Your task to perform on an android device: create a new album in the google photos Image 0: 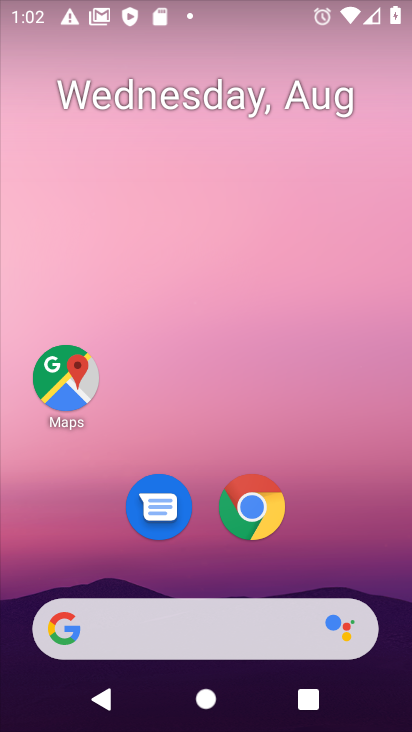
Step 0: drag from (245, 578) to (348, 73)
Your task to perform on an android device: create a new album in the google photos Image 1: 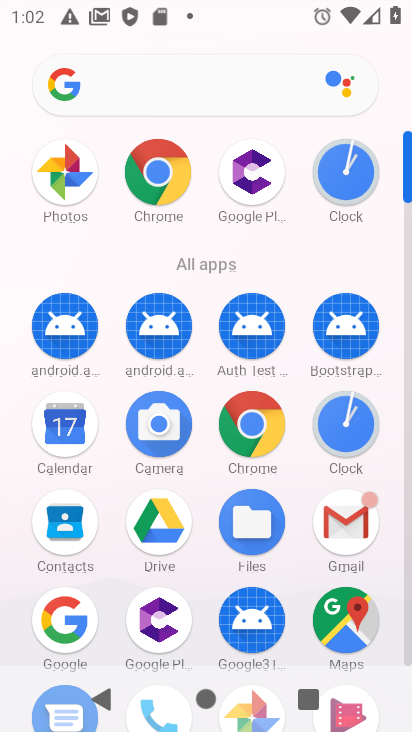
Step 1: drag from (195, 563) to (168, 190)
Your task to perform on an android device: create a new album in the google photos Image 2: 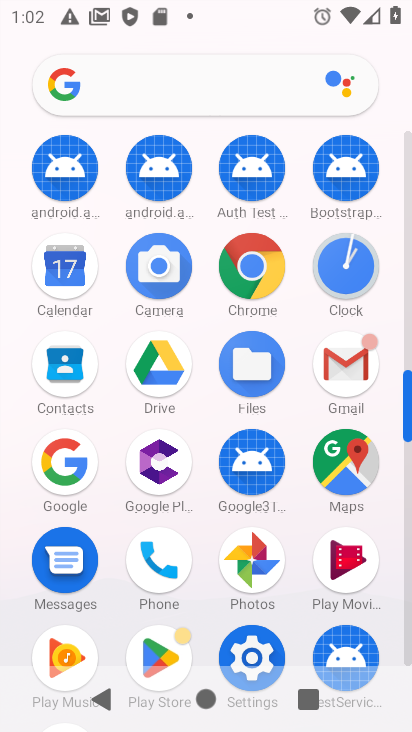
Step 2: click (264, 560)
Your task to perform on an android device: create a new album in the google photos Image 3: 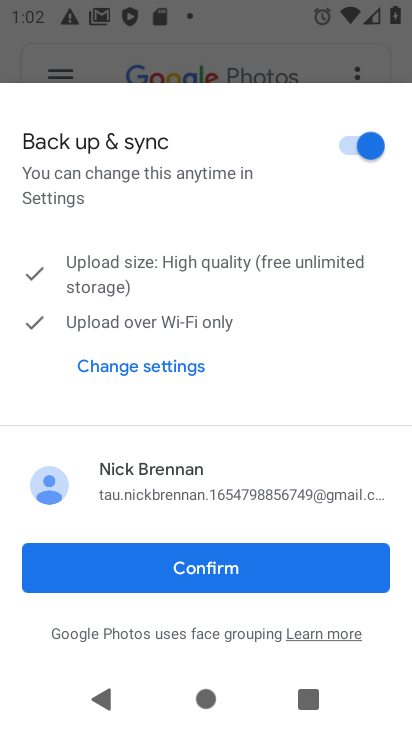
Step 3: click (181, 568)
Your task to perform on an android device: create a new album in the google photos Image 4: 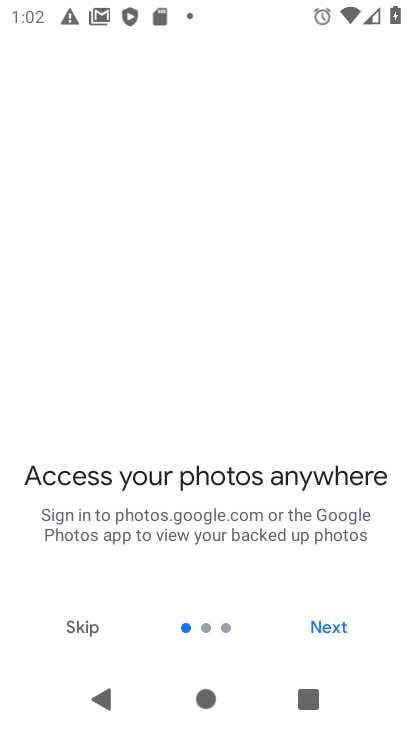
Step 4: click (96, 631)
Your task to perform on an android device: create a new album in the google photos Image 5: 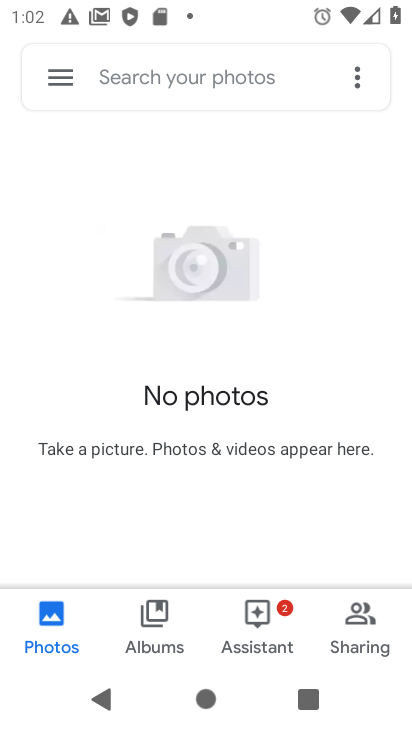
Step 5: click (149, 608)
Your task to perform on an android device: create a new album in the google photos Image 6: 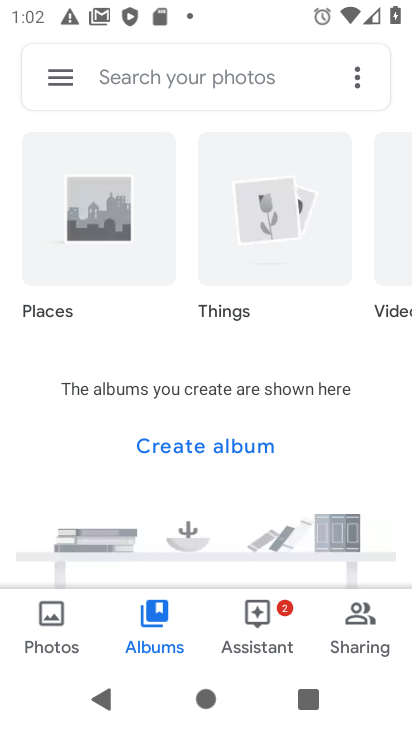
Step 6: click (17, 626)
Your task to perform on an android device: create a new album in the google photos Image 7: 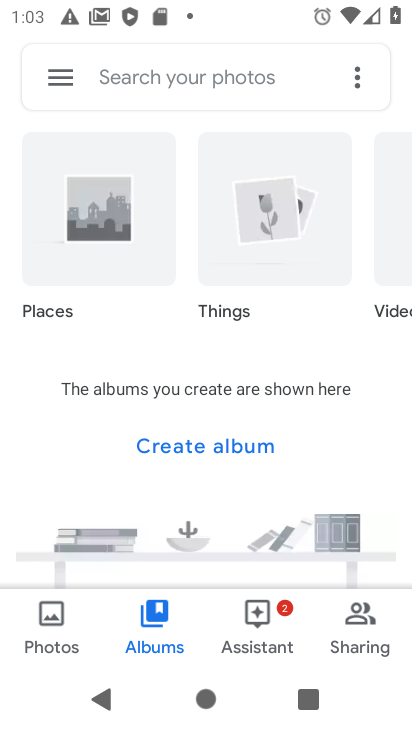
Step 7: click (44, 642)
Your task to perform on an android device: create a new album in the google photos Image 8: 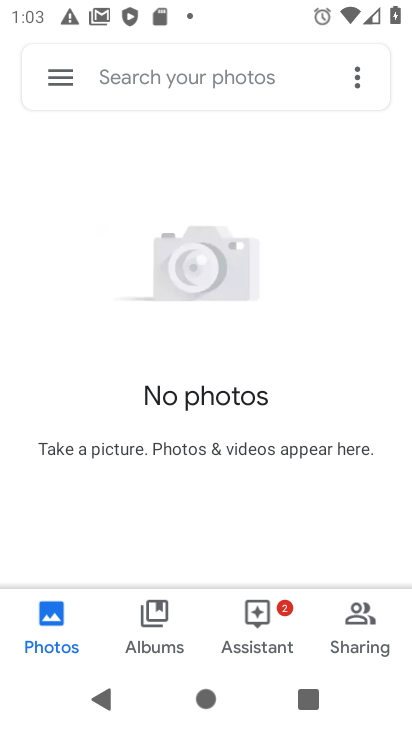
Step 8: task complete